Your task to perform on an android device: Turn on the flashlight Image 0: 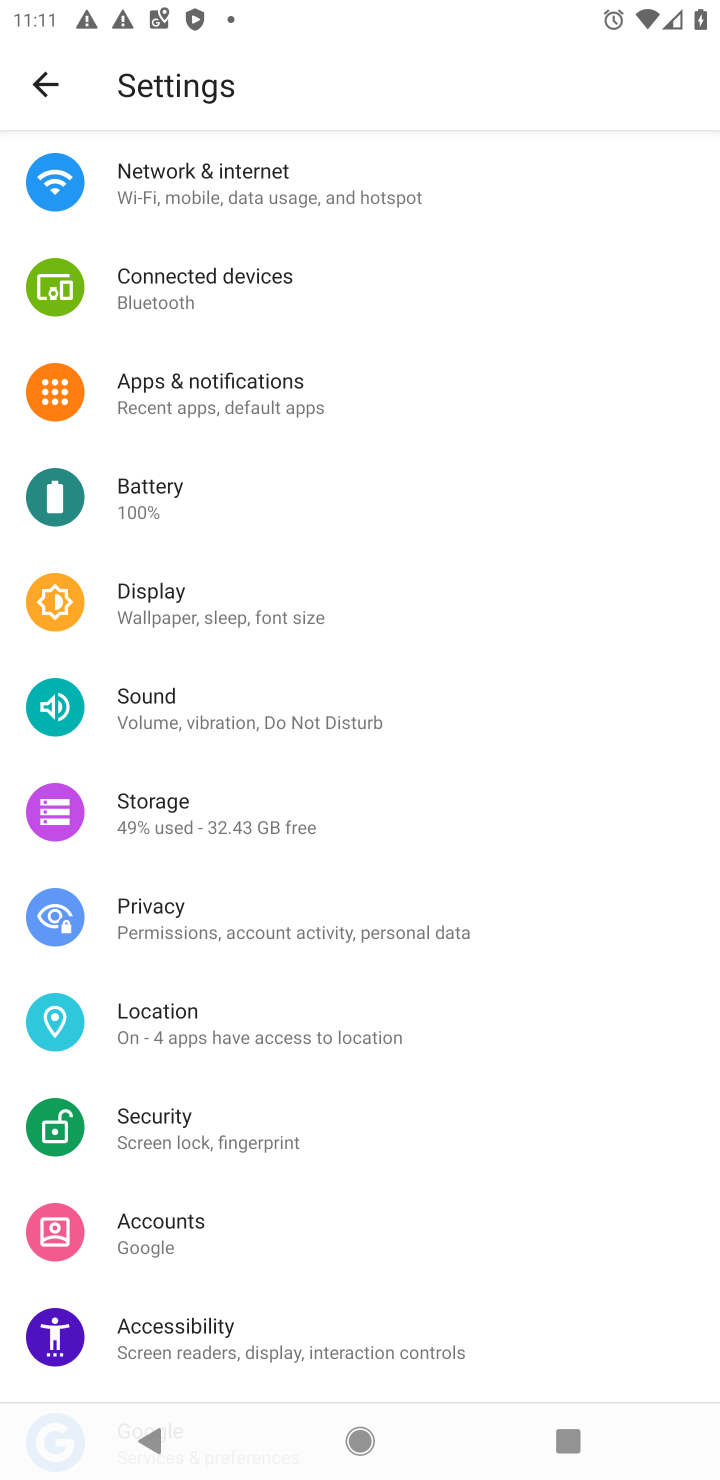
Step 0: drag from (342, 889) to (426, 214)
Your task to perform on an android device: Turn on the flashlight Image 1: 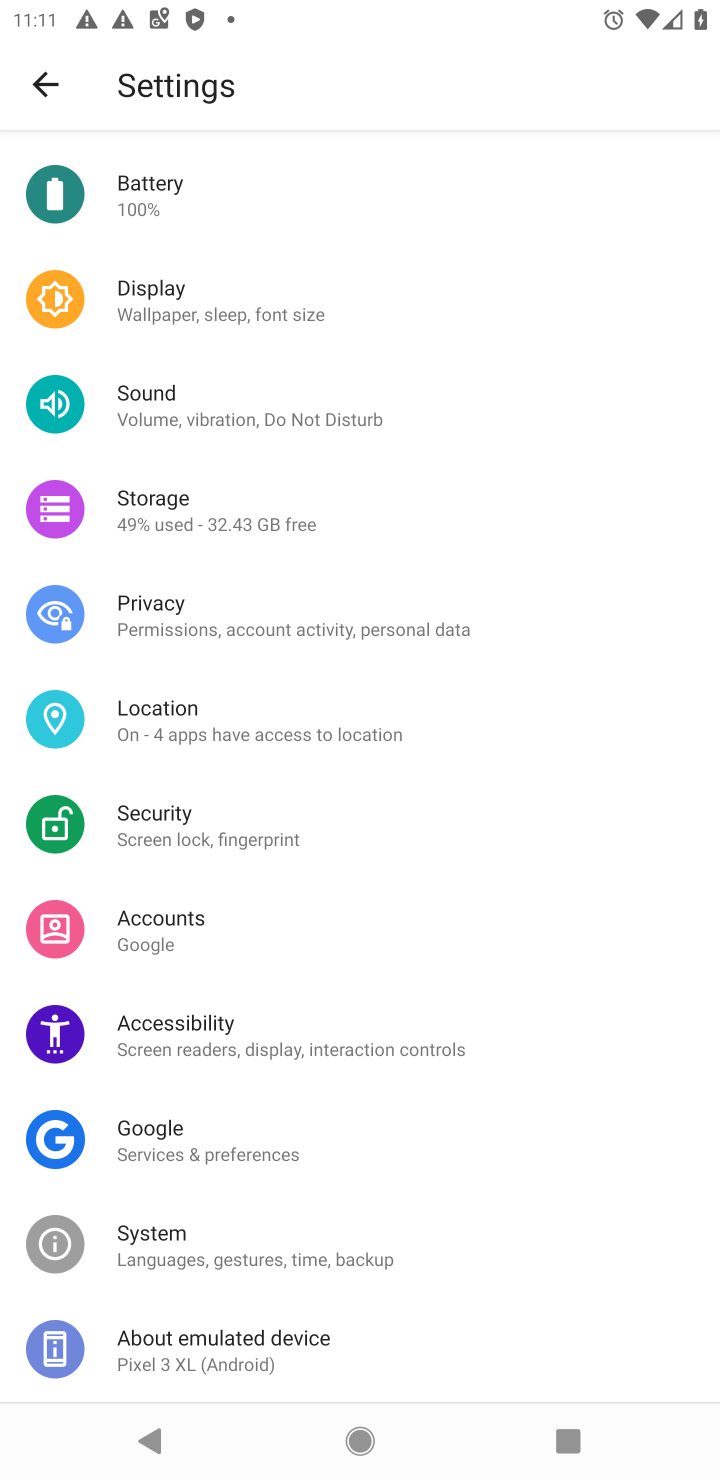
Step 1: task complete